Your task to perform on an android device: read, delete, or share a saved page in the chrome app Image 0: 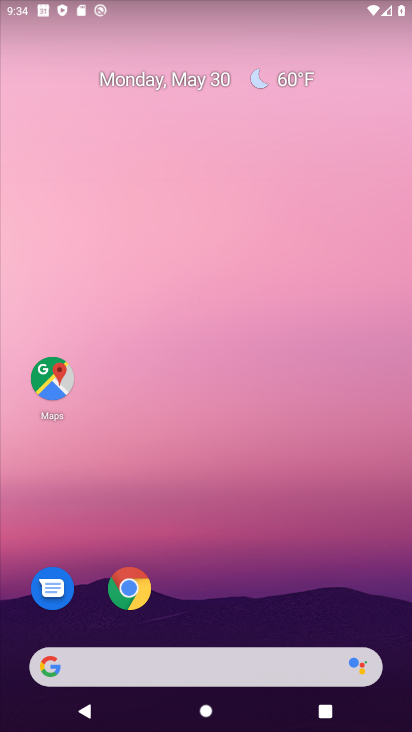
Step 0: drag from (207, 592) to (332, 87)
Your task to perform on an android device: read, delete, or share a saved page in the chrome app Image 1: 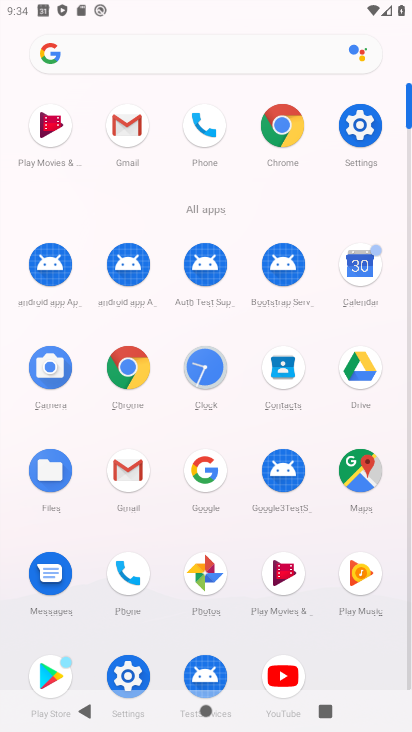
Step 1: click (131, 379)
Your task to perform on an android device: read, delete, or share a saved page in the chrome app Image 2: 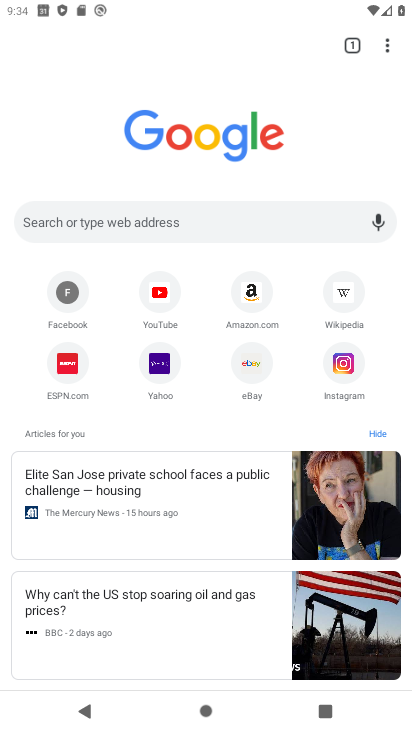
Step 2: click (393, 47)
Your task to perform on an android device: read, delete, or share a saved page in the chrome app Image 3: 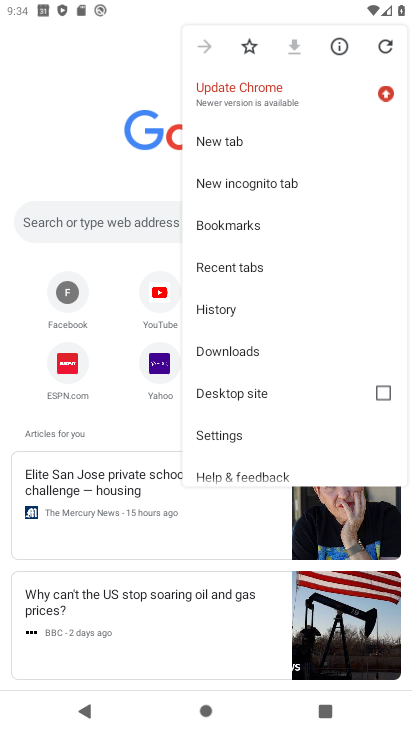
Step 3: click (249, 346)
Your task to perform on an android device: read, delete, or share a saved page in the chrome app Image 4: 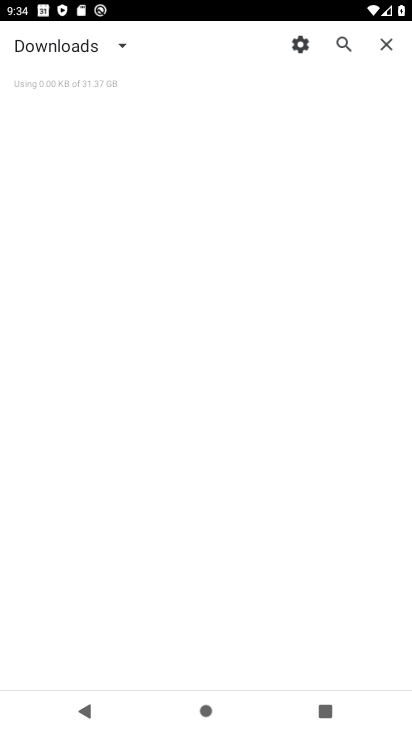
Step 4: task complete